Your task to perform on an android device: turn on javascript in the chrome app Image 0: 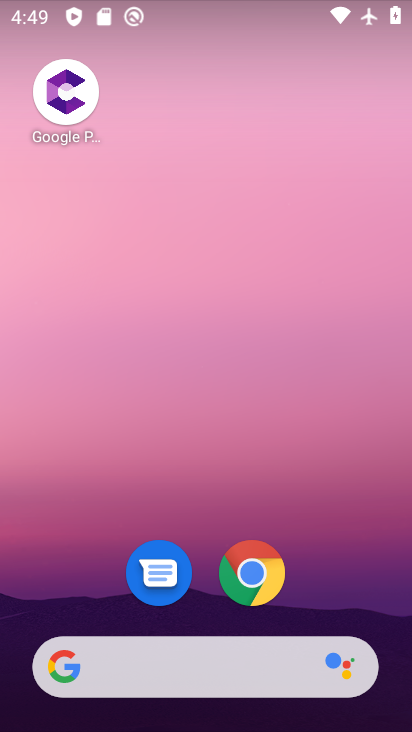
Step 0: drag from (355, 620) to (256, 66)
Your task to perform on an android device: turn on javascript in the chrome app Image 1: 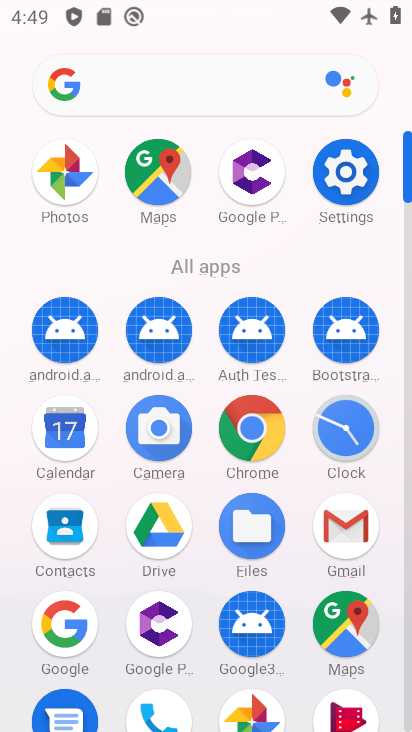
Step 1: click (258, 428)
Your task to perform on an android device: turn on javascript in the chrome app Image 2: 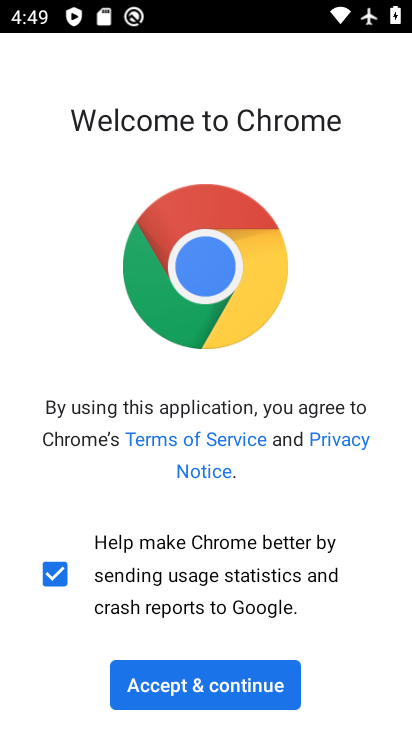
Step 2: click (177, 681)
Your task to perform on an android device: turn on javascript in the chrome app Image 3: 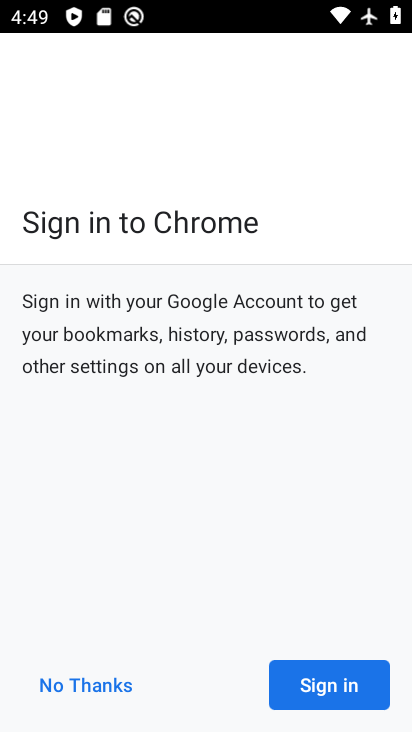
Step 3: click (178, 680)
Your task to perform on an android device: turn on javascript in the chrome app Image 4: 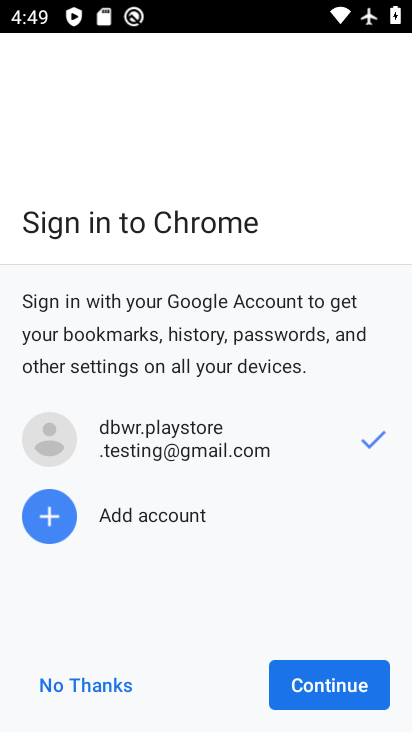
Step 4: click (179, 679)
Your task to perform on an android device: turn on javascript in the chrome app Image 5: 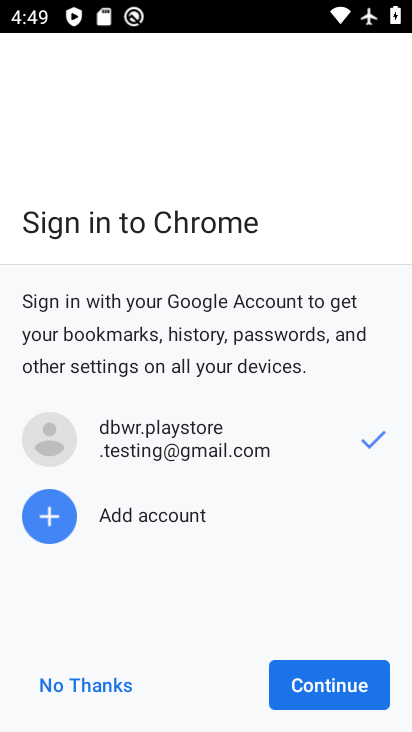
Step 5: click (345, 689)
Your task to perform on an android device: turn on javascript in the chrome app Image 6: 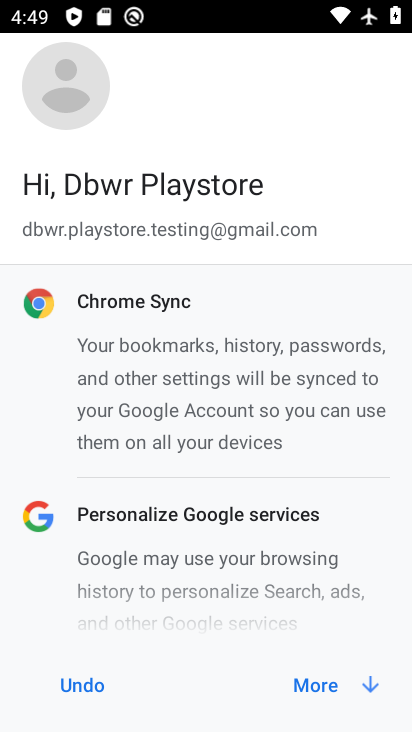
Step 6: click (323, 680)
Your task to perform on an android device: turn on javascript in the chrome app Image 7: 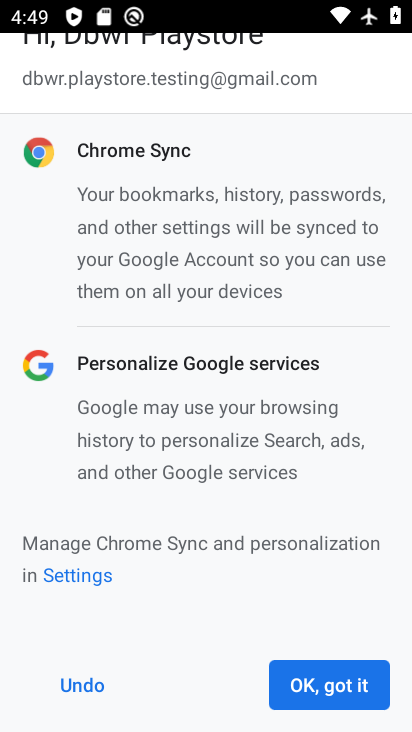
Step 7: click (321, 692)
Your task to perform on an android device: turn on javascript in the chrome app Image 8: 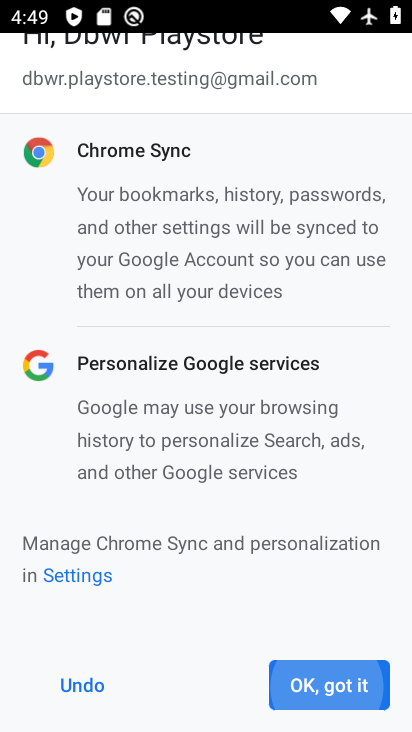
Step 8: click (321, 692)
Your task to perform on an android device: turn on javascript in the chrome app Image 9: 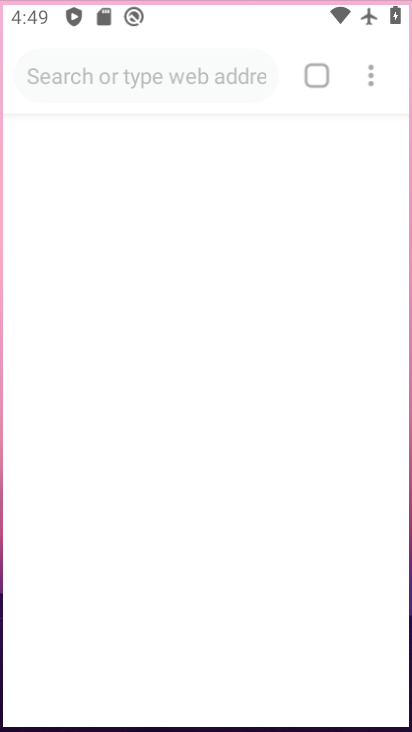
Step 9: click (332, 675)
Your task to perform on an android device: turn on javascript in the chrome app Image 10: 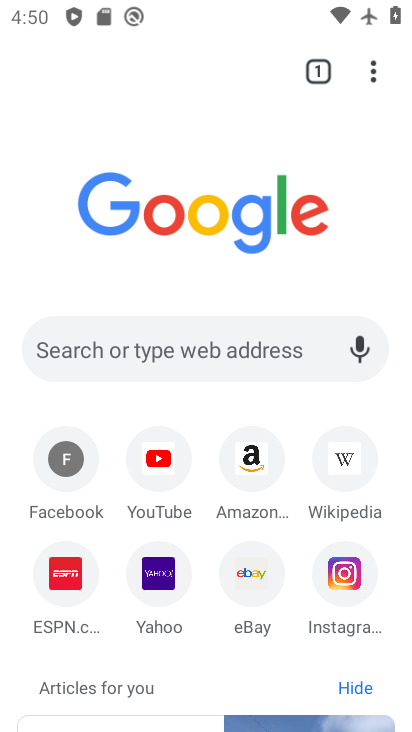
Step 10: click (368, 70)
Your task to perform on an android device: turn on javascript in the chrome app Image 11: 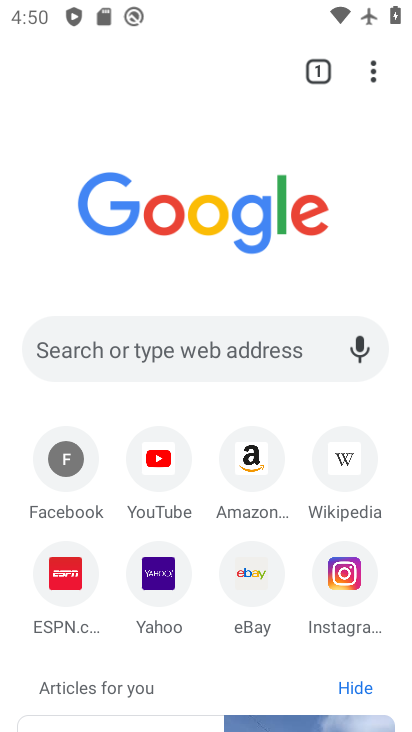
Step 11: click (369, 75)
Your task to perform on an android device: turn on javascript in the chrome app Image 12: 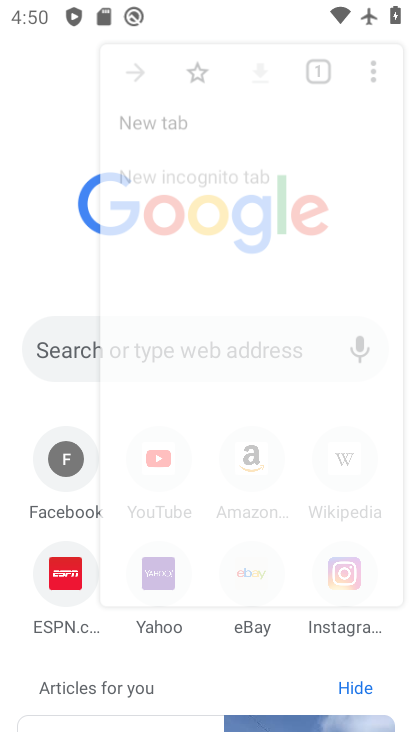
Step 12: click (369, 75)
Your task to perform on an android device: turn on javascript in the chrome app Image 13: 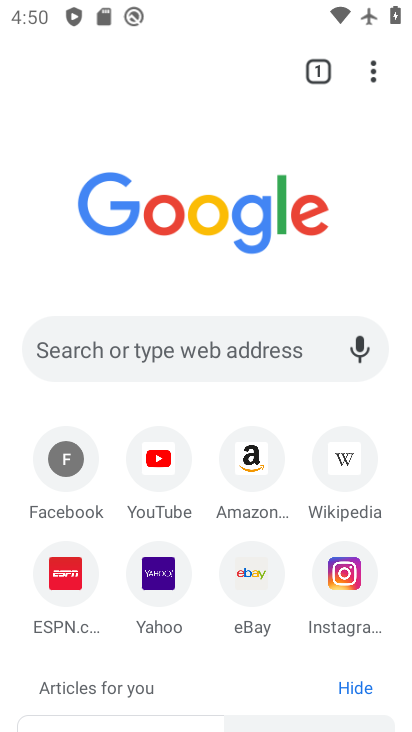
Step 13: click (370, 75)
Your task to perform on an android device: turn on javascript in the chrome app Image 14: 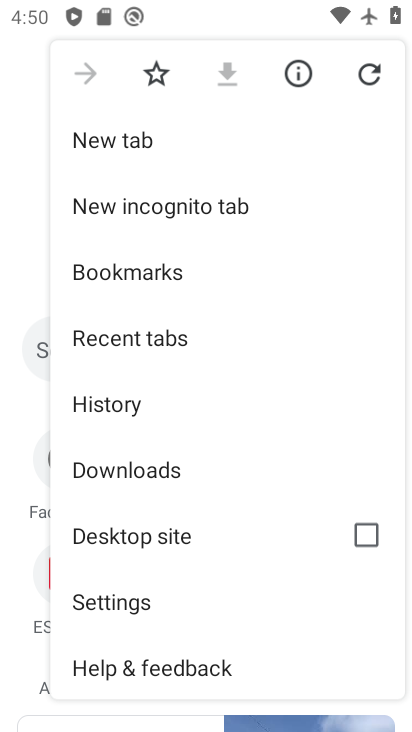
Step 14: click (106, 588)
Your task to perform on an android device: turn on javascript in the chrome app Image 15: 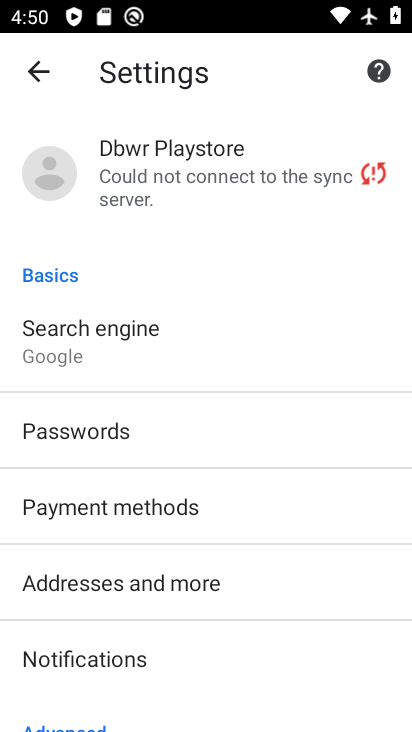
Step 15: drag from (125, 606) to (87, 190)
Your task to perform on an android device: turn on javascript in the chrome app Image 16: 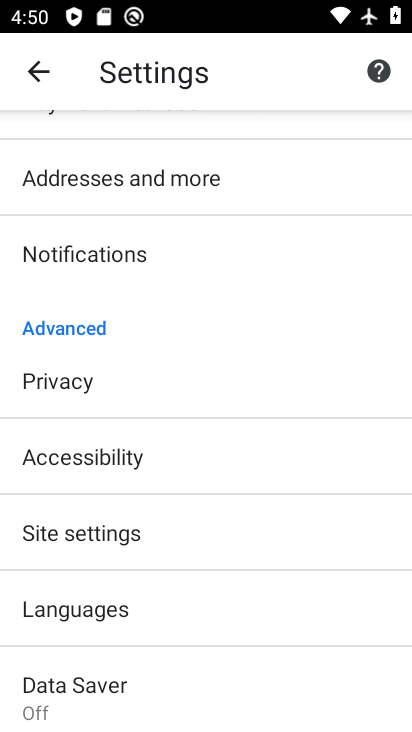
Step 16: click (57, 536)
Your task to perform on an android device: turn on javascript in the chrome app Image 17: 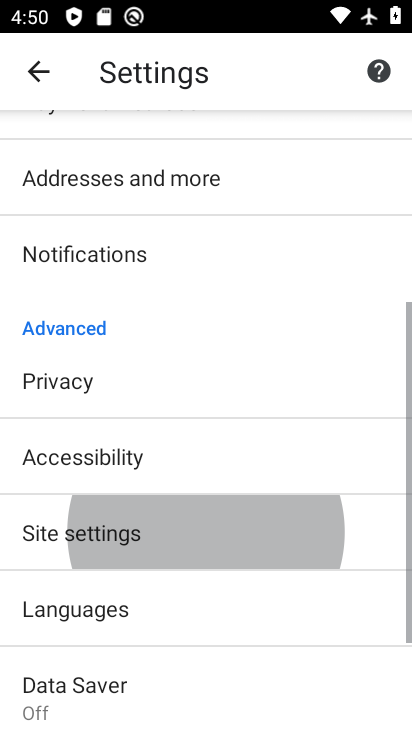
Step 17: click (57, 537)
Your task to perform on an android device: turn on javascript in the chrome app Image 18: 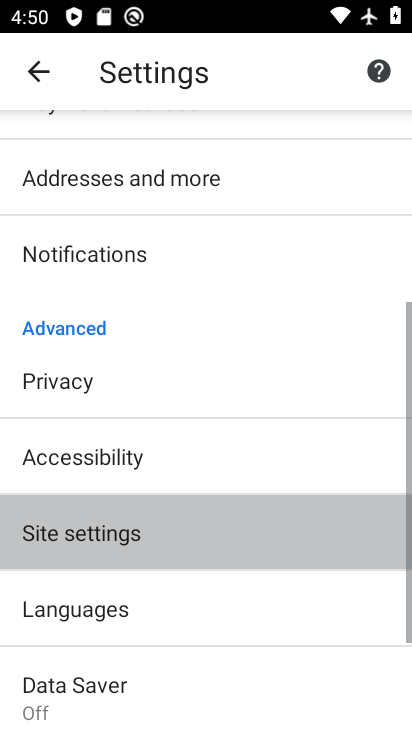
Step 18: click (61, 537)
Your task to perform on an android device: turn on javascript in the chrome app Image 19: 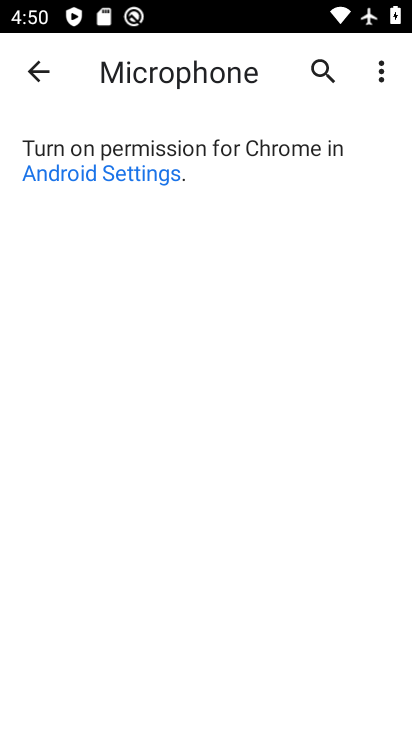
Step 19: click (23, 71)
Your task to perform on an android device: turn on javascript in the chrome app Image 20: 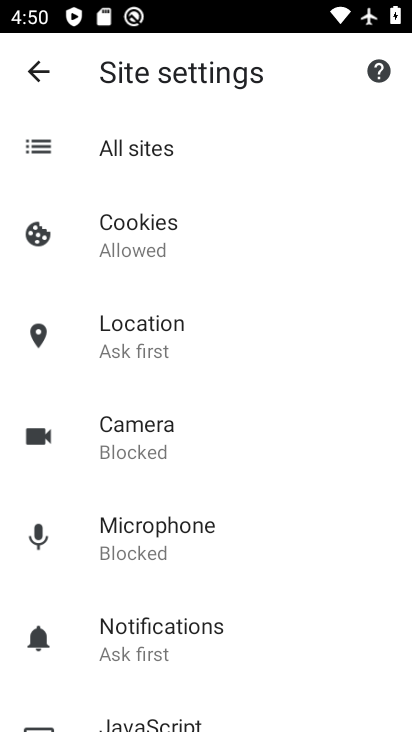
Step 20: drag from (138, 650) to (147, 205)
Your task to perform on an android device: turn on javascript in the chrome app Image 21: 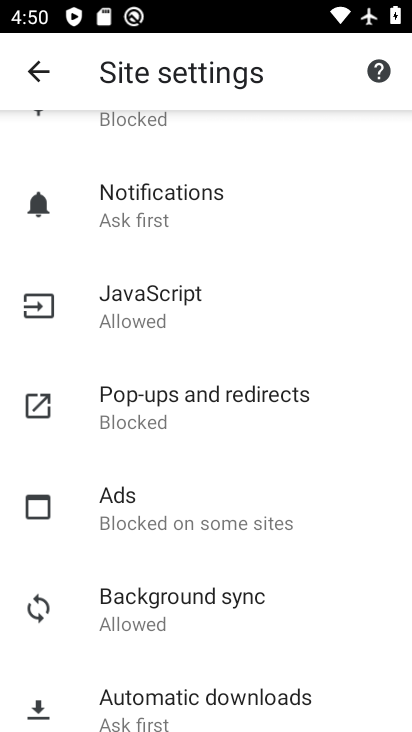
Step 21: click (141, 300)
Your task to perform on an android device: turn on javascript in the chrome app Image 22: 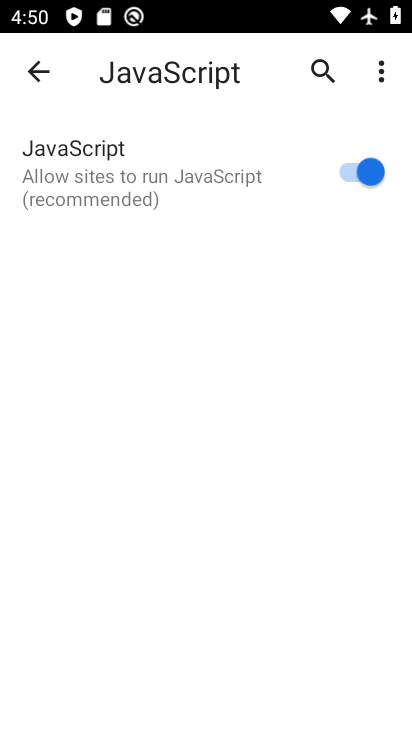
Step 22: task complete